Your task to perform on an android device: Go to Yahoo.com Image 0: 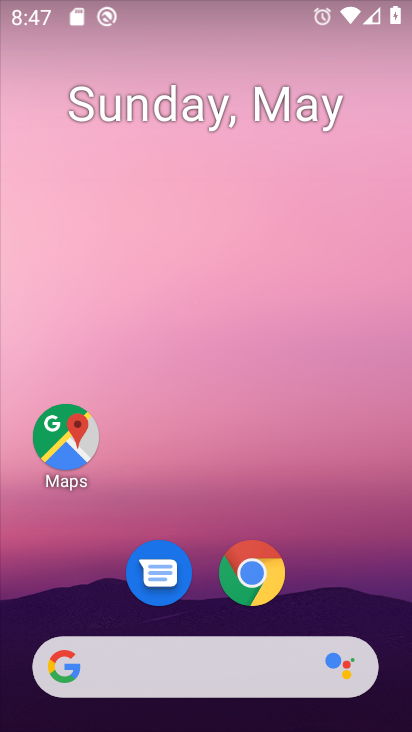
Step 0: click (257, 659)
Your task to perform on an android device: Go to Yahoo.com Image 1: 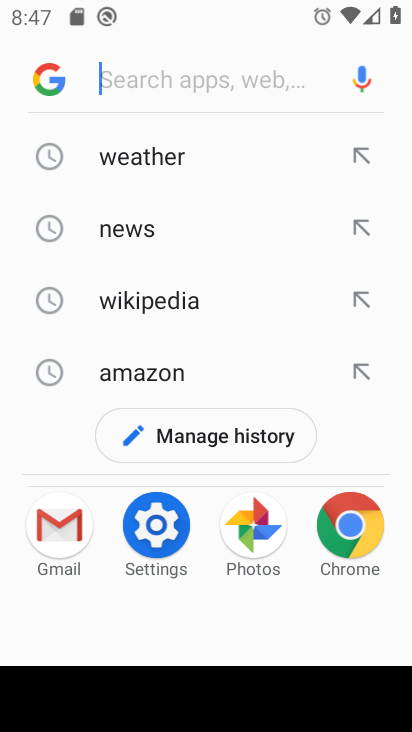
Step 1: type "yahoo.com"
Your task to perform on an android device: Go to Yahoo.com Image 2: 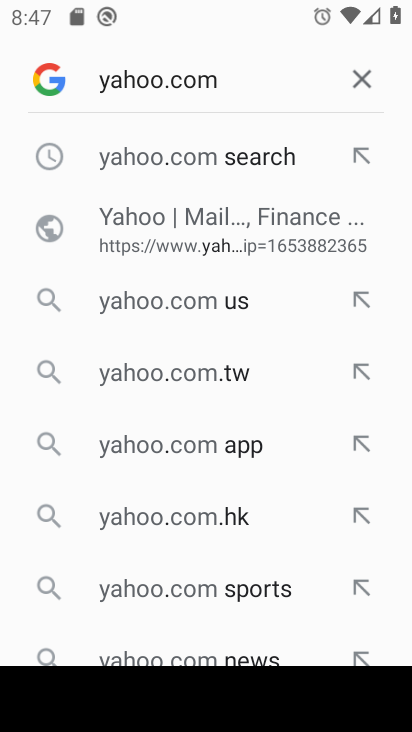
Step 2: click (180, 153)
Your task to perform on an android device: Go to Yahoo.com Image 3: 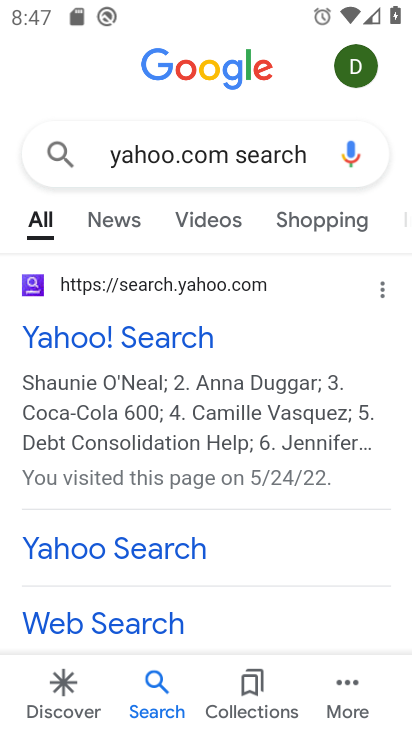
Step 3: click (90, 333)
Your task to perform on an android device: Go to Yahoo.com Image 4: 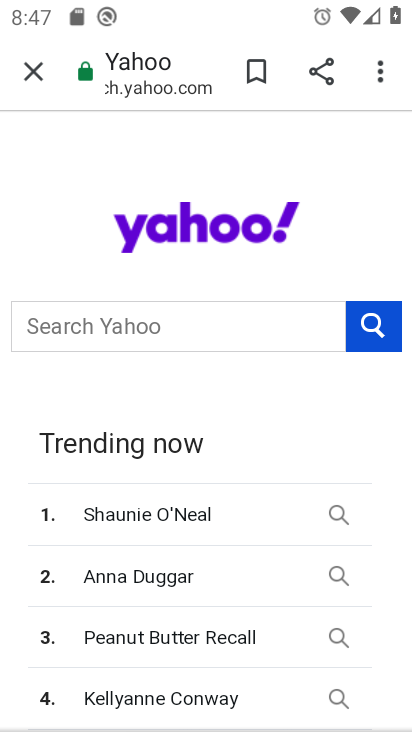
Step 4: task complete